Your task to perform on an android device: see creations saved in the google photos Image 0: 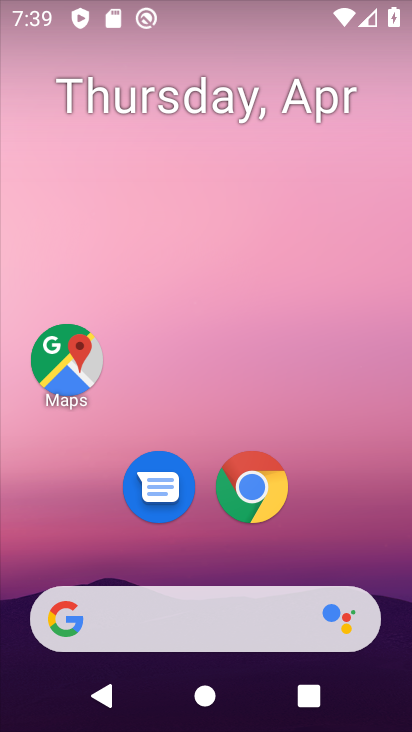
Step 0: drag from (341, 538) to (296, 30)
Your task to perform on an android device: see creations saved in the google photos Image 1: 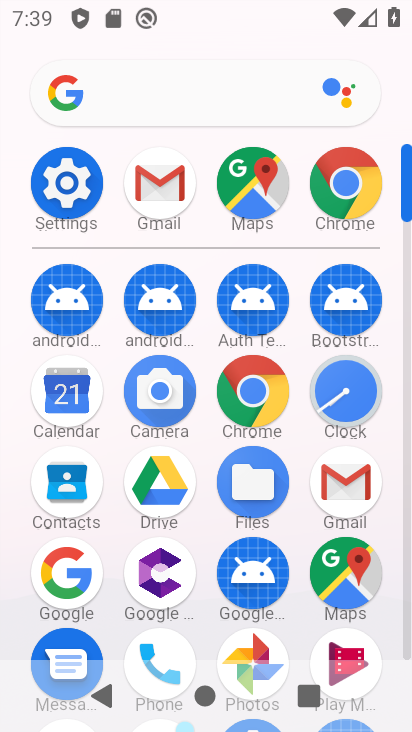
Step 1: click (245, 646)
Your task to perform on an android device: see creations saved in the google photos Image 2: 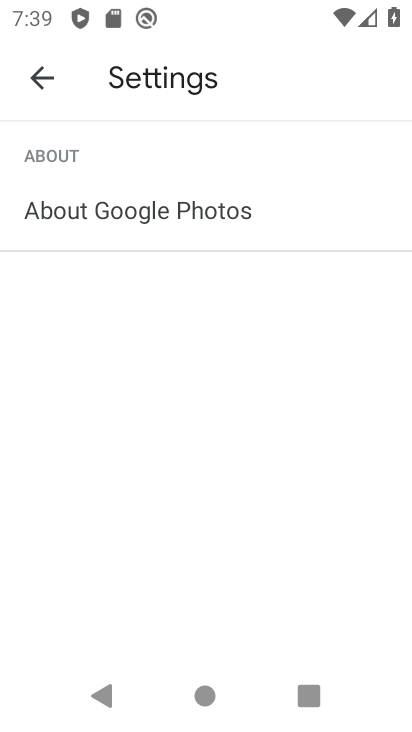
Step 2: press back button
Your task to perform on an android device: see creations saved in the google photos Image 3: 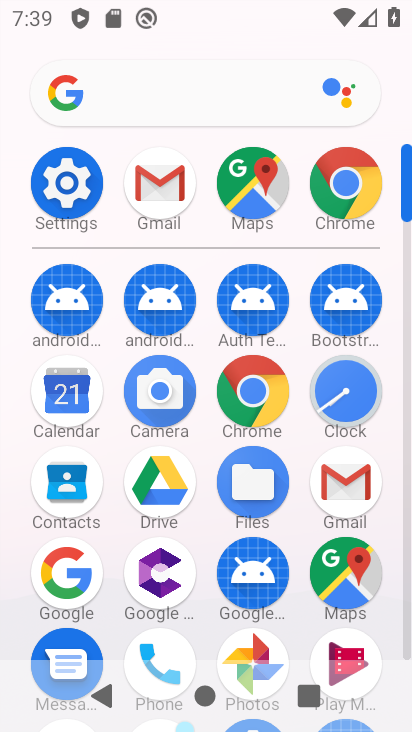
Step 3: click (255, 646)
Your task to perform on an android device: see creations saved in the google photos Image 4: 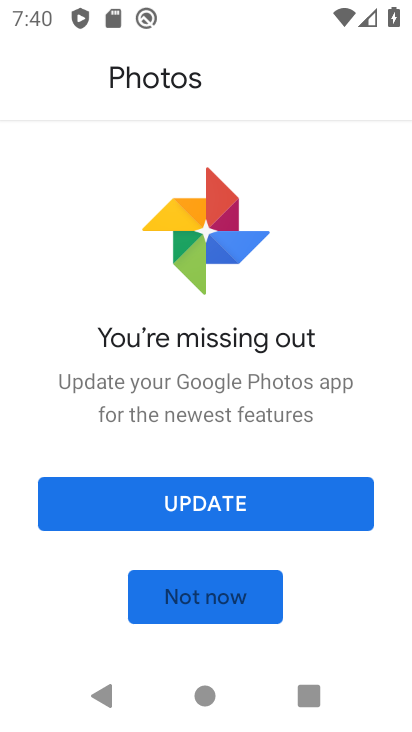
Step 4: click (41, 76)
Your task to perform on an android device: see creations saved in the google photos Image 5: 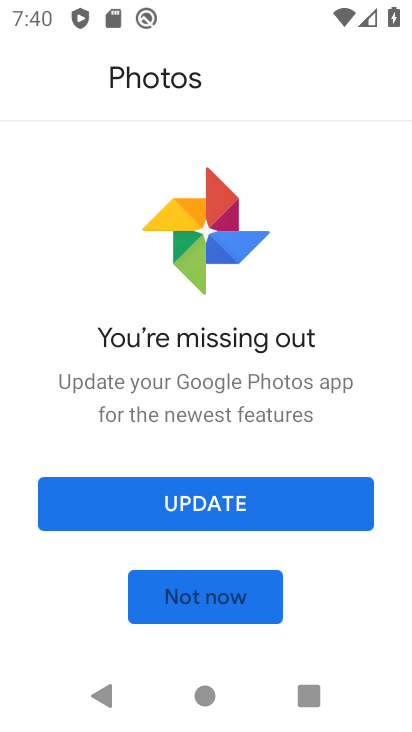
Step 5: click (206, 510)
Your task to perform on an android device: see creations saved in the google photos Image 6: 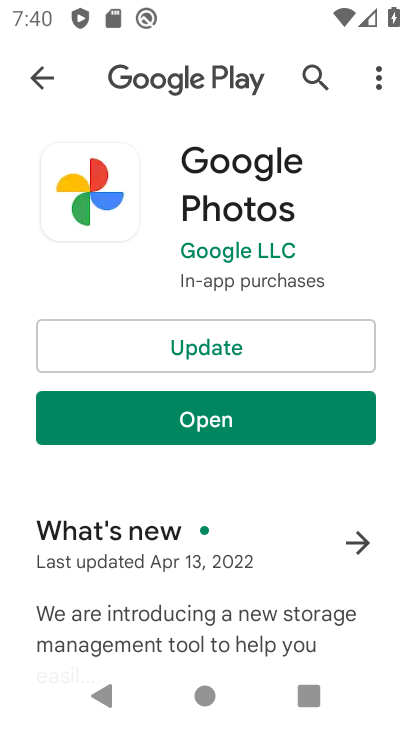
Step 6: click (250, 332)
Your task to perform on an android device: see creations saved in the google photos Image 7: 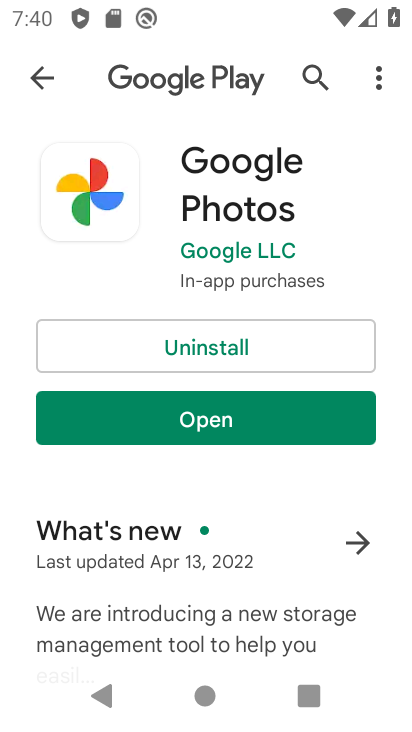
Step 7: click (233, 402)
Your task to perform on an android device: see creations saved in the google photos Image 8: 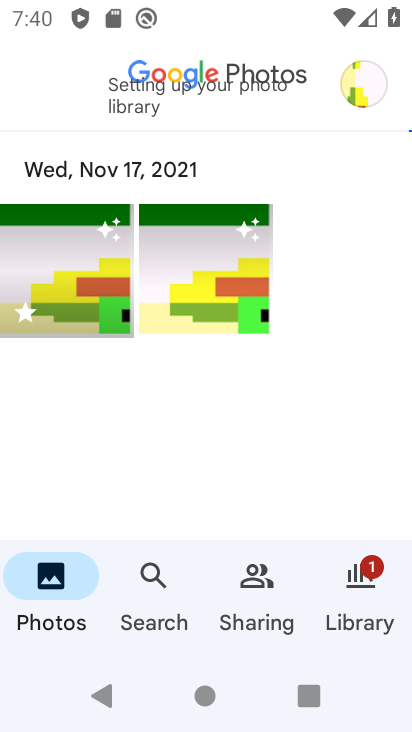
Step 8: click (374, 84)
Your task to perform on an android device: see creations saved in the google photos Image 9: 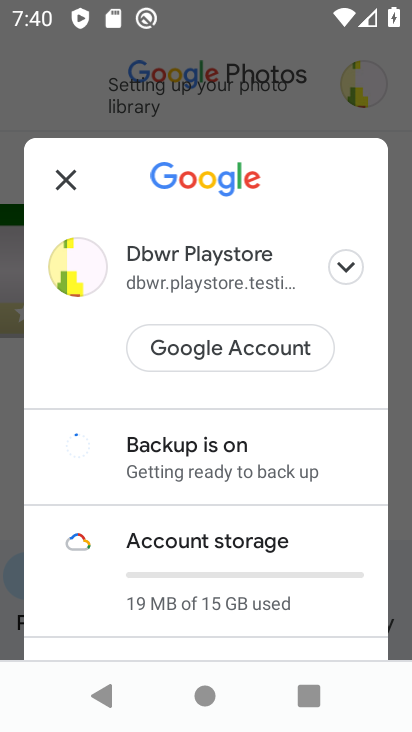
Step 9: press back button
Your task to perform on an android device: see creations saved in the google photos Image 10: 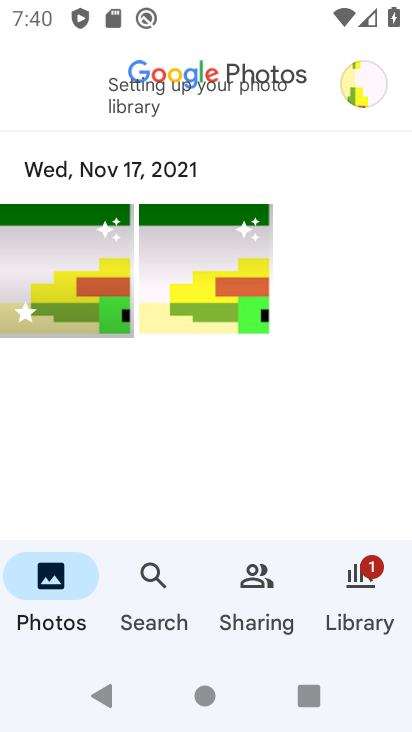
Step 10: click (179, 69)
Your task to perform on an android device: see creations saved in the google photos Image 11: 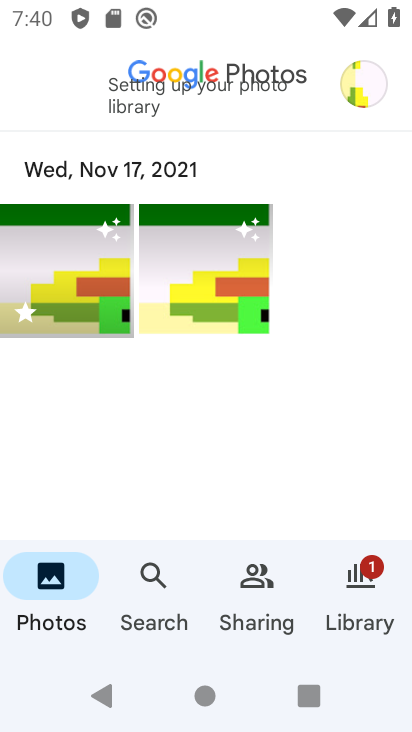
Step 11: click (164, 569)
Your task to perform on an android device: see creations saved in the google photos Image 12: 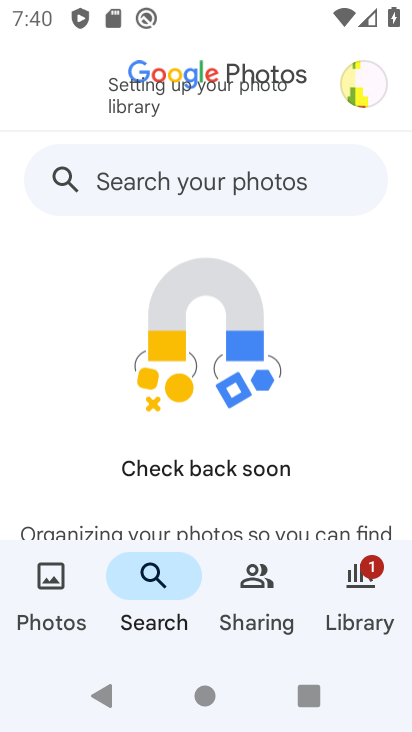
Step 12: drag from (190, 437) to (234, 66)
Your task to perform on an android device: see creations saved in the google photos Image 13: 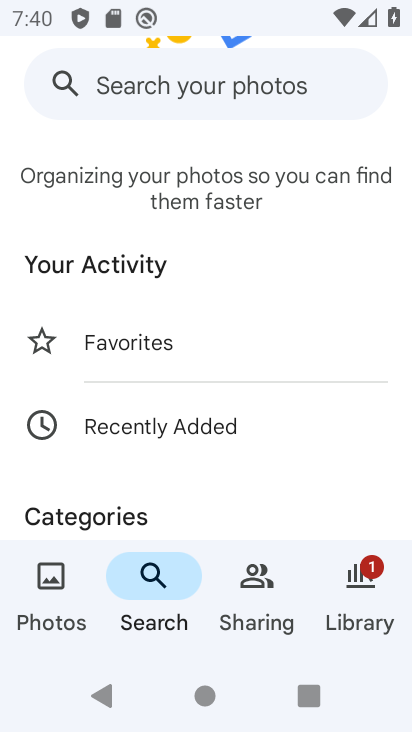
Step 13: drag from (187, 451) to (243, 54)
Your task to perform on an android device: see creations saved in the google photos Image 14: 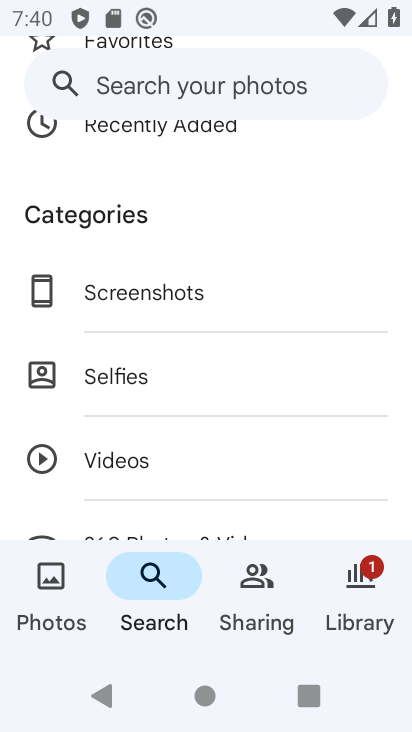
Step 14: drag from (159, 473) to (236, 157)
Your task to perform on an android device: see creations saved in the google photos Image 15: 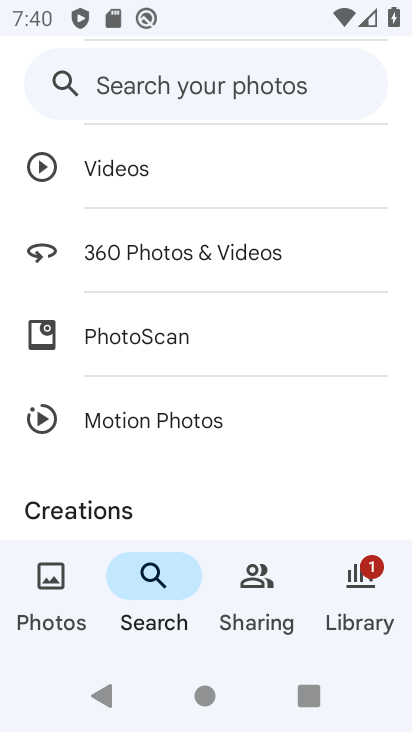
Step 15: drag from (186, 437) to (251, 175)
Your task to perform on an android device: see creations saved in the google photos Image 16: 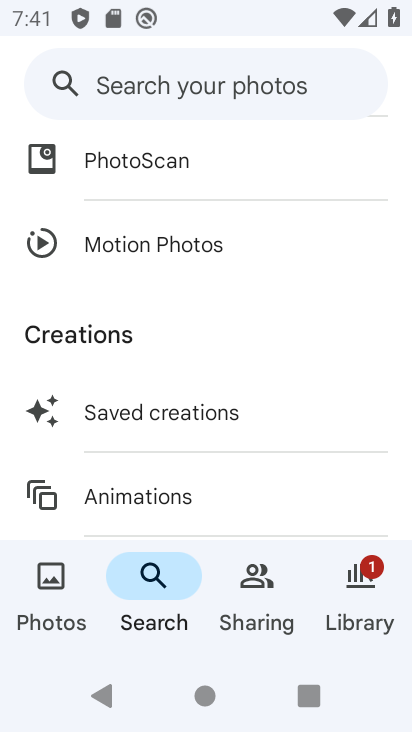
Step 16: click (172, 421)
Your task to perform on an android device: see creations saved in the google photos Image 17: 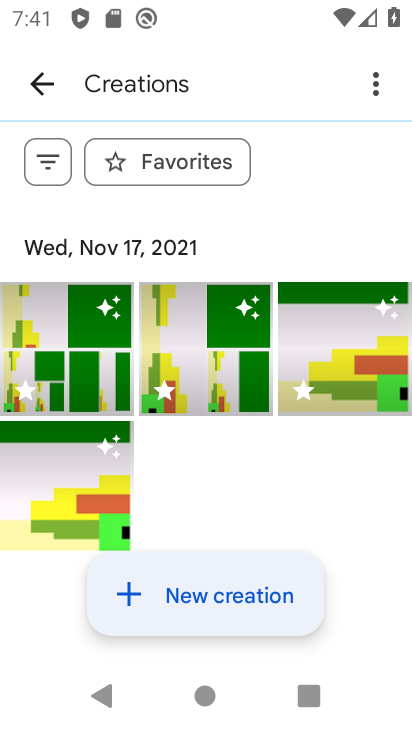
Step 17: task complete